Your task to perform on an android device: open chrome privacy settings Image 0: 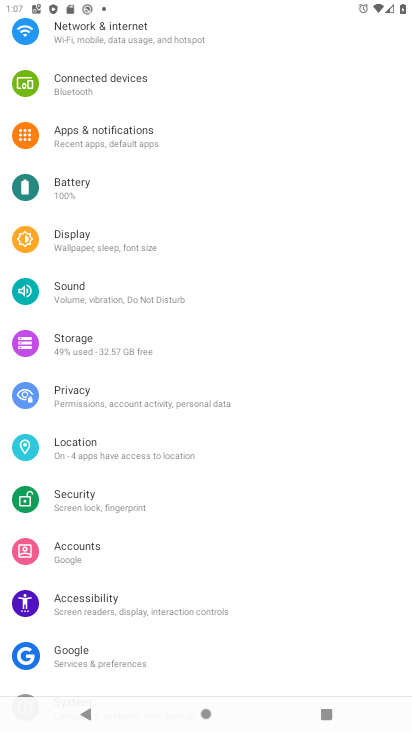
Step 0: press home button
Your task to perform on an android device: open chrome privacy settings Image 1: 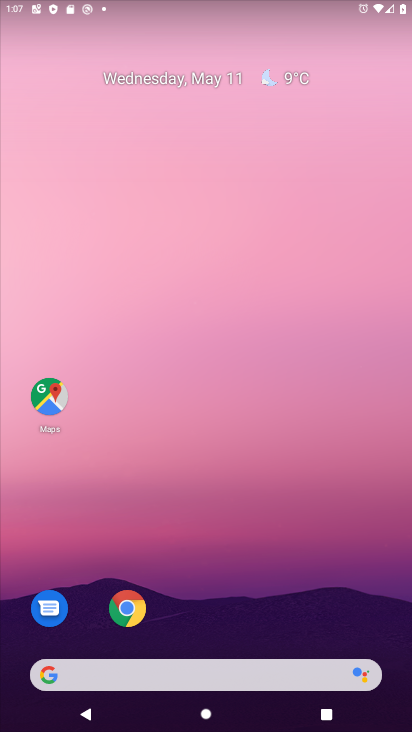
Step 1: drag from (226, 545) to (160, 149)
Your task to perform on an android device: open chrome privacy settings Image 2: 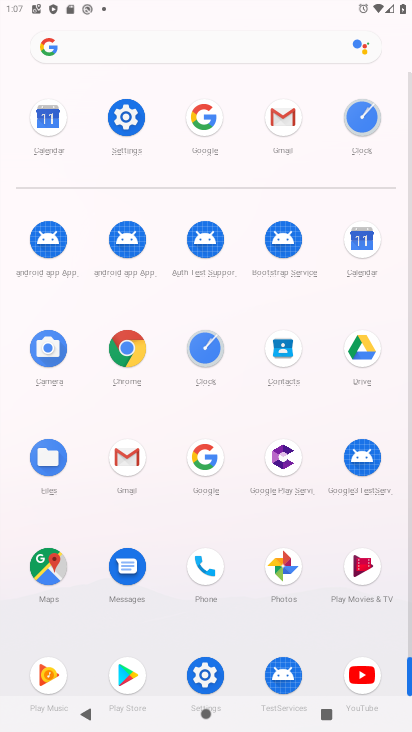
Step 2: click (138, 359)
Your task to perform on an android device: open chrome privacy settings Image 3: 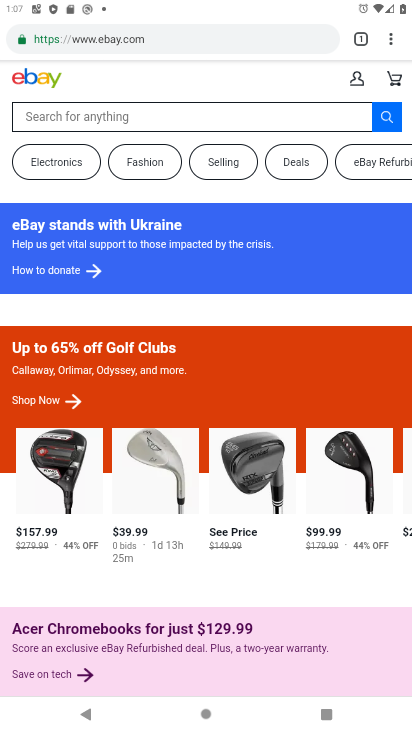
Step 3: click (393, 43)
Your task to perform on an android device: open chrome privacy settings Image 4: 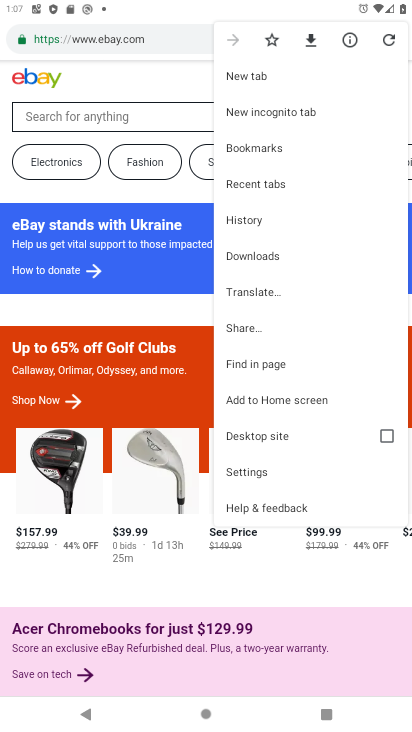
Step 4: click (286, 478)
Your task to perform on an android device: open chrome privacy settings Image 5: 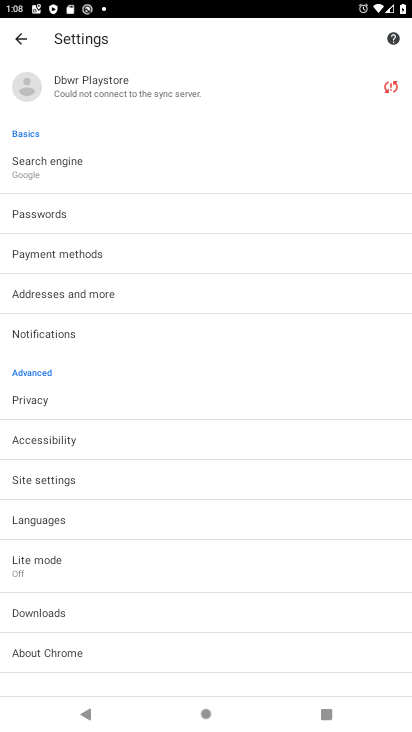
Step 5: click (59, 407)
Your task to perform on an android device: open chrome privacy settings Image 6: 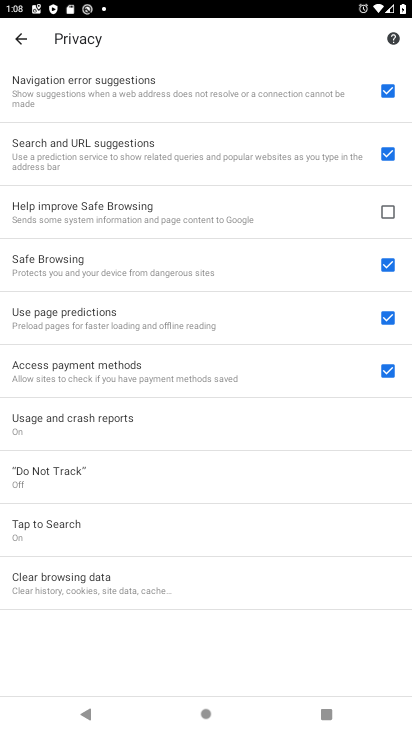
Step 6: task complete